Your task to perform on an android device: turn pop-ups on in chrome Image 0: 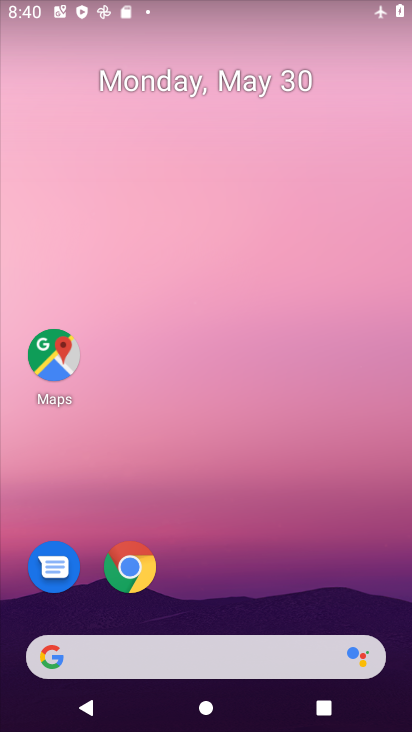
Step 0: click (139, 566)
Your task to perform on an android device: turn pop-ups on in chrome Image 1: 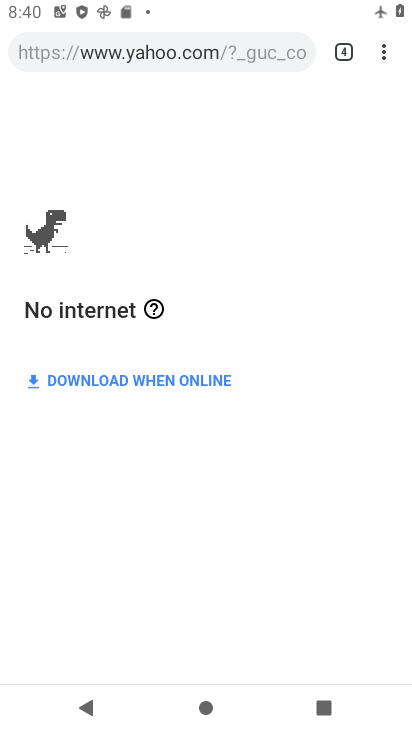
Step 1: task complete